Your task to perform on an android device: Find coffee shops on Maps Image 0: 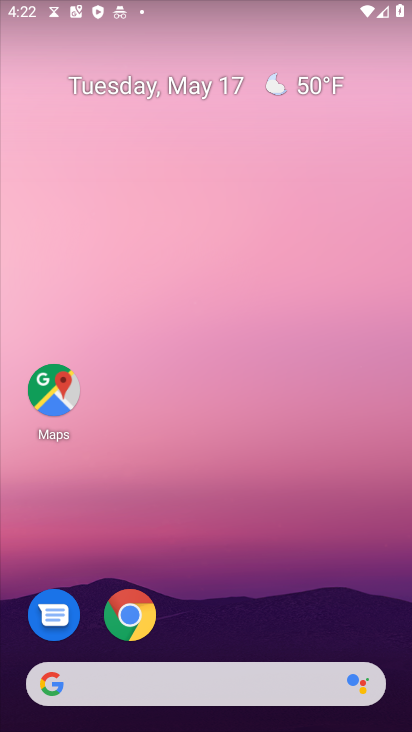
Step 0: drag from (305, 648) to (225, 174)
Your task to perform on an android device: Find coffee shops on Maps Image 1: 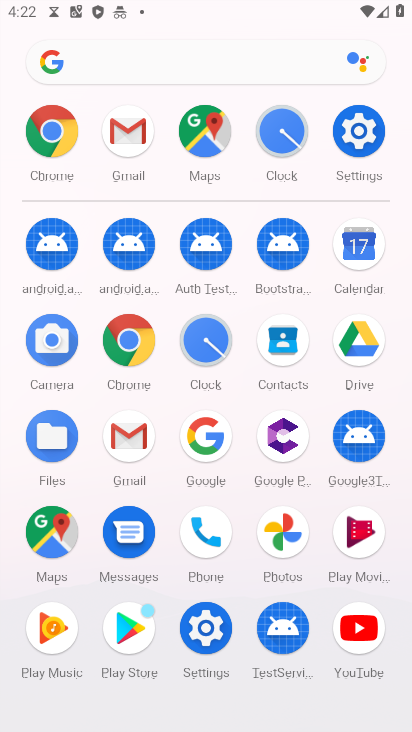
Step 1: click (50, 527)
Your task to perform on an android device: Find coffee shops on Maps Image 2: 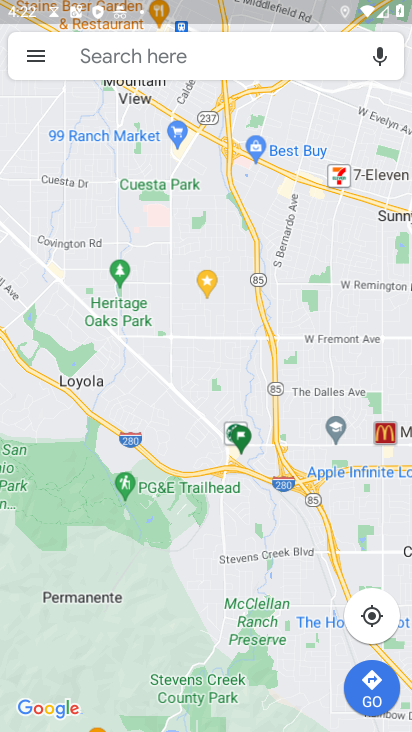
Step 2: click (90, 51)
Your task to perform on an android device: Find coffee shops on Maps Image 3: 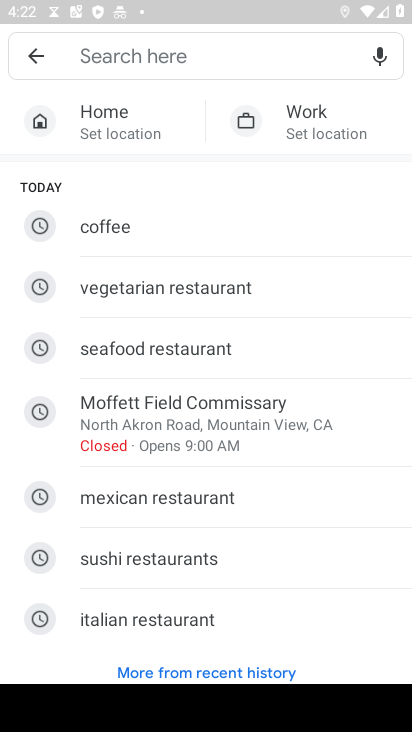
Step 3: type "coffee"
Your task to perform on an android device: Find coffee shops on Maps Image 4: 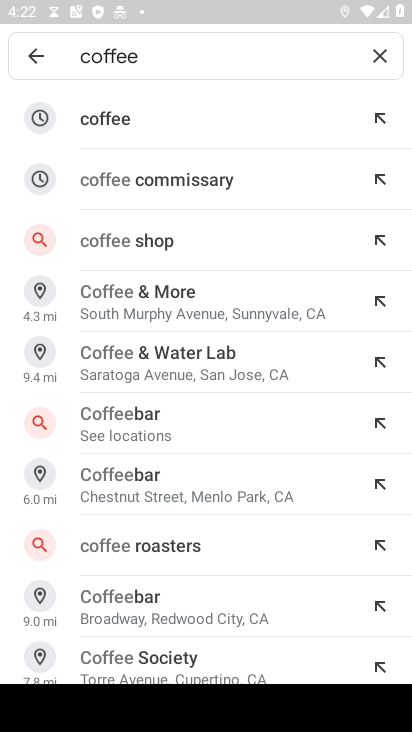
Step 4: click (109, 110)
Your task to perform on an android device: Find coffee shops on Maps Image 5: 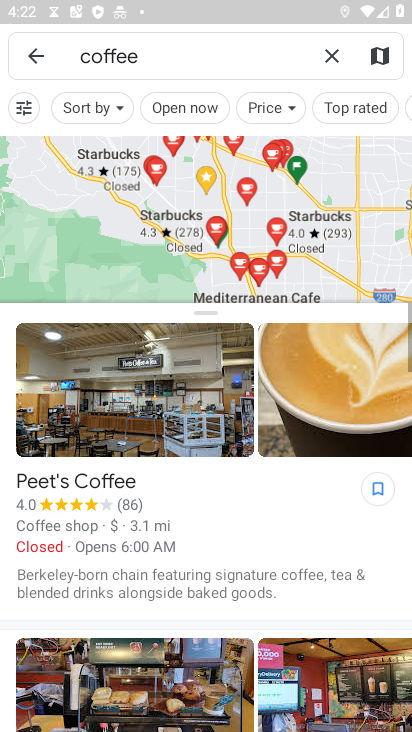
Step 5: task complete